Your task to perform on an android device: check the backup settings in the google photos Image 0: 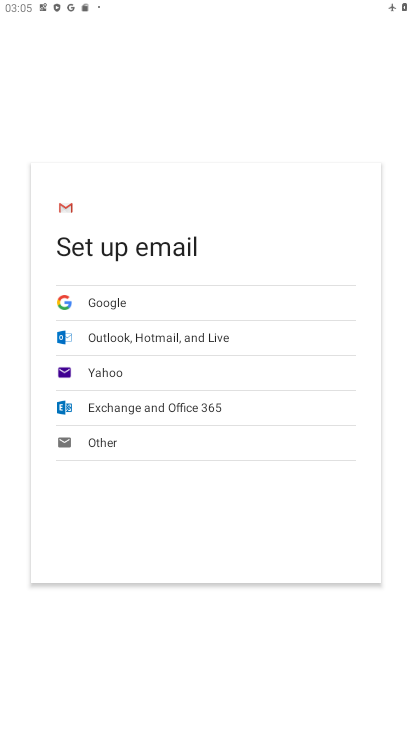
Step 0: task complete